Your task to perform on an android device: Open eBay Image 0: 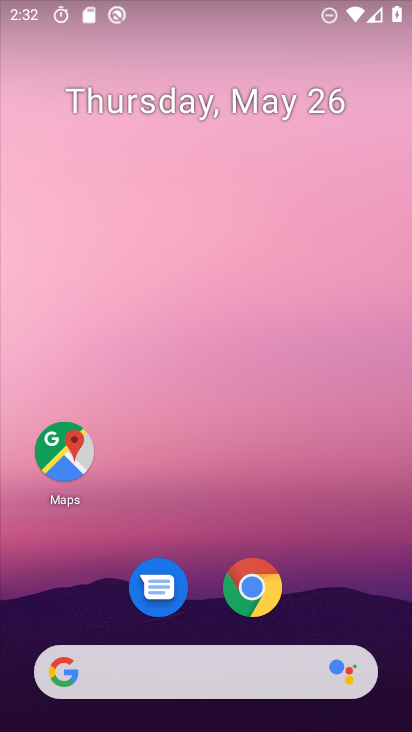
Step 0: click (254, 580)
Your task to perform on an android device: Open eBay Image 1: 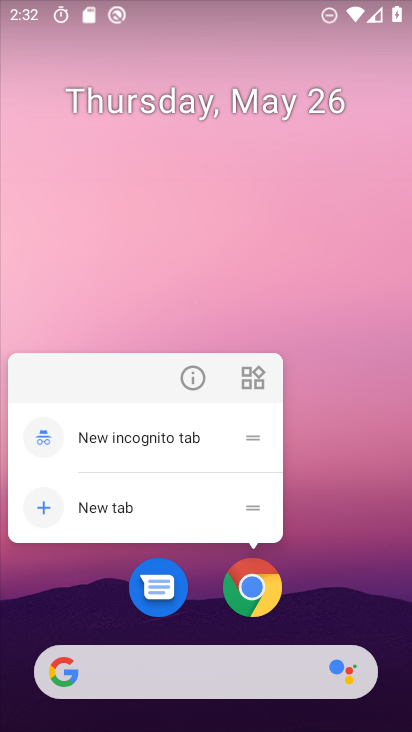
Step 1: click (247, 590)
Your task to perform on an android device: Open eBay Image 2: 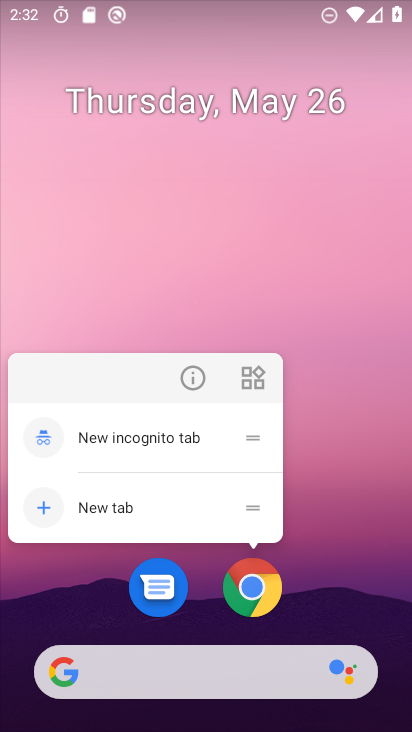
Step 2: click (311, 576)
Your task to perform on an android device: Open eBay Image 3: 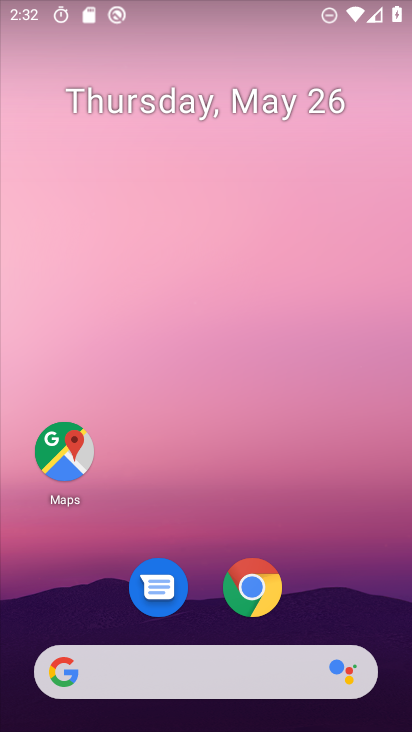
Step 3: drag from (328, 593) to (339, 107)
Your task to perform on an android device: Open eBay Image 4: 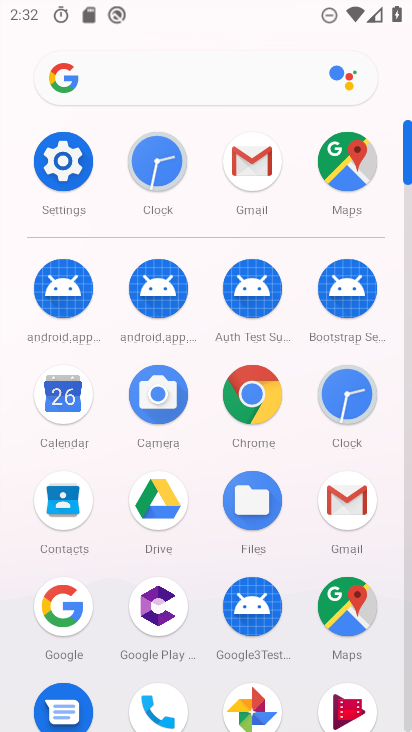
Step 4: click (243, 392)
Your task to perform on an android device: Open eBay Image 5: 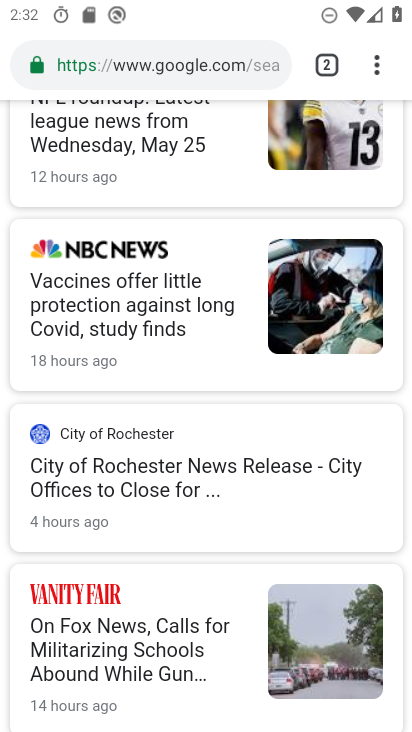
Step 5: click (211, 58)
Your task to perform on an android device: Open eBay Image 6: 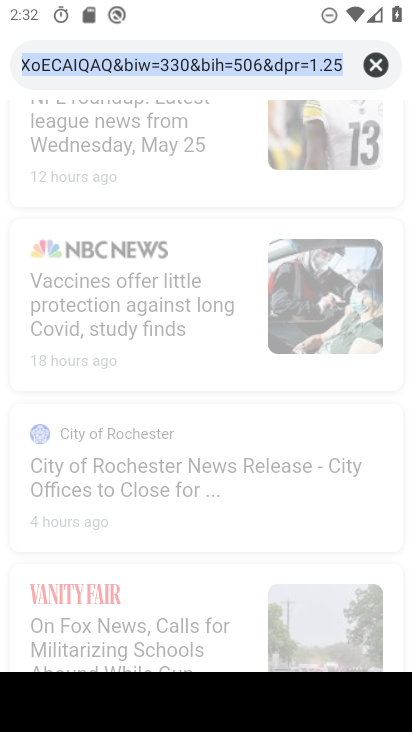
Step 6: type "ebay"
Your task to perform on an android device: Open eBay Image 7: 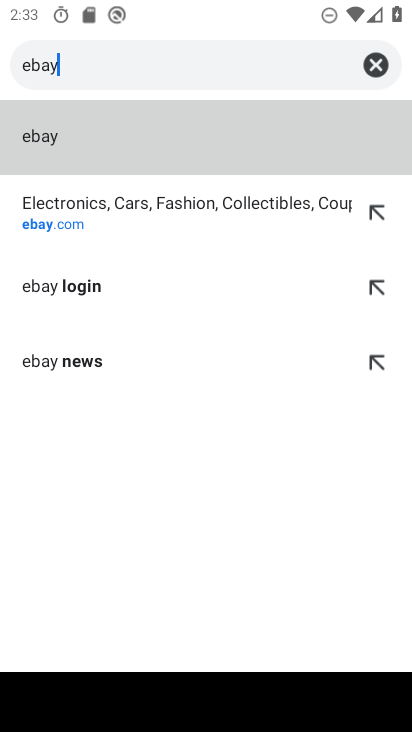
Step 7: click (46, 226)
Your task to perform on an android device: Open eBay Image 8: 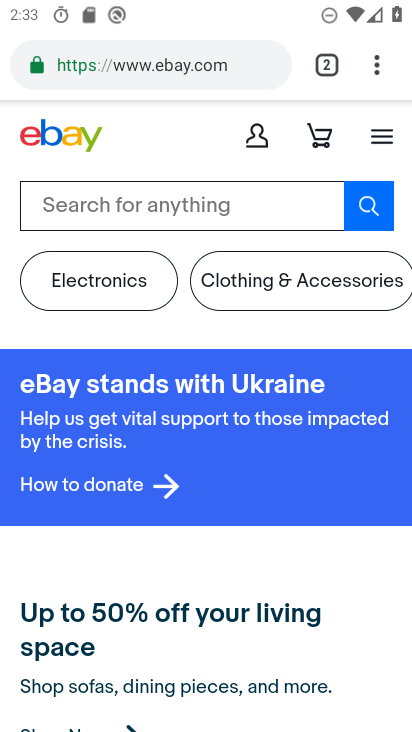
Step 8: task complete